Your task to perform on an android device: change the upload size in google photos Image 0: 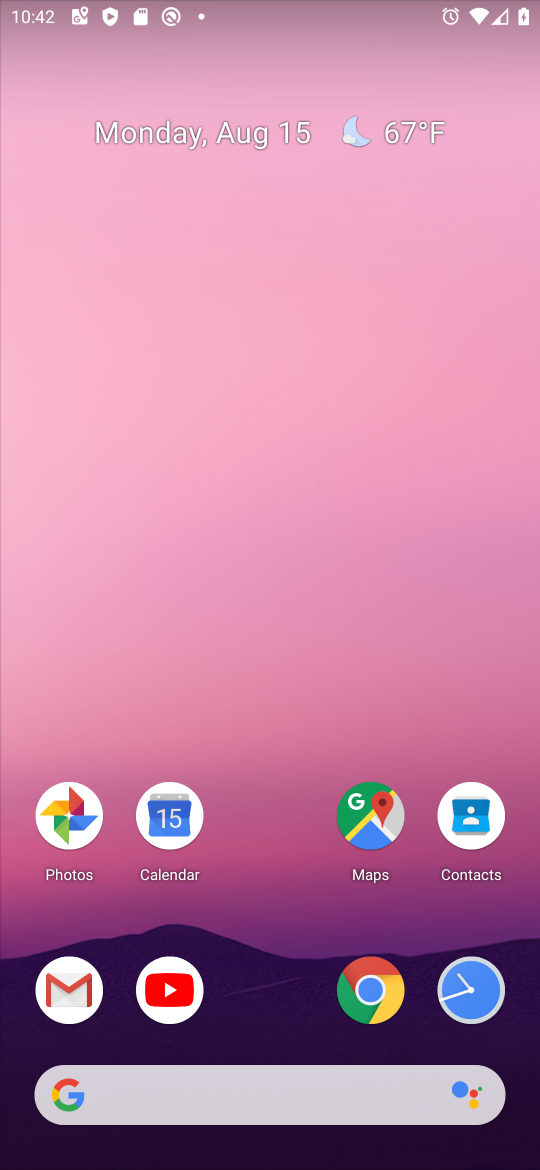
Step 0: click (71, 816)
Your task to perform on an android device: change the upload size in google photos Image 1: 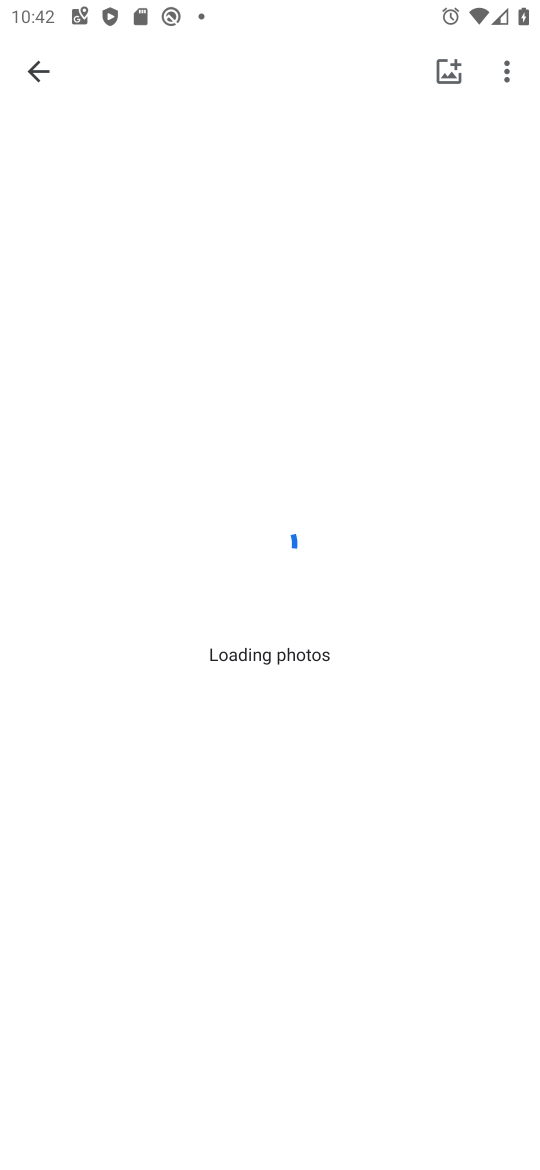
Step 1: click (36, 65)
Your task to perform on an android device: change the upload size in google photos Image 2: 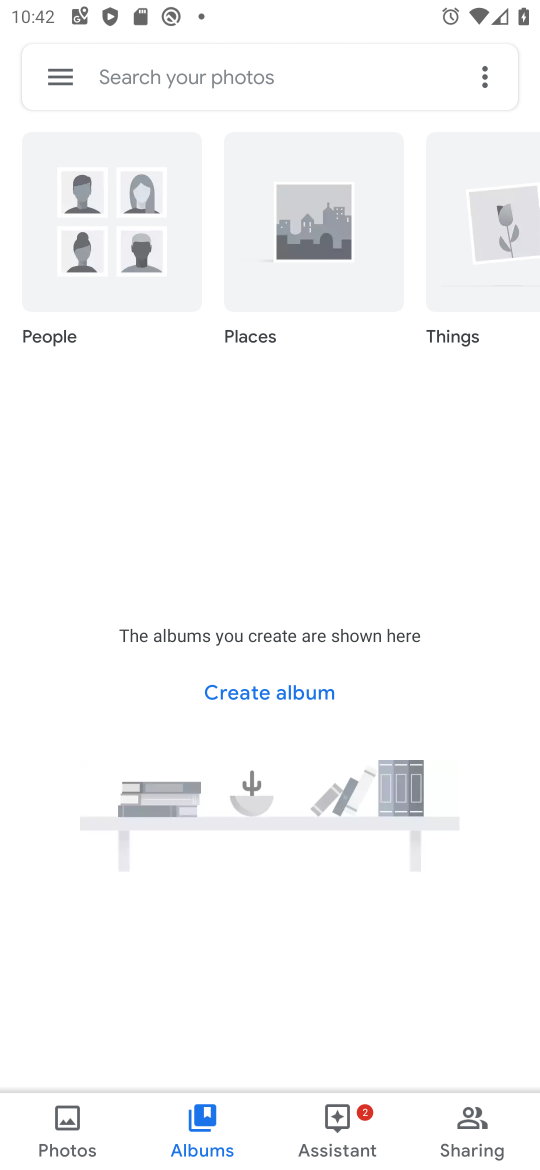
Step 2: click (62, 64)
Your task to perform on an android device: change the upload size in google photos Image 3: 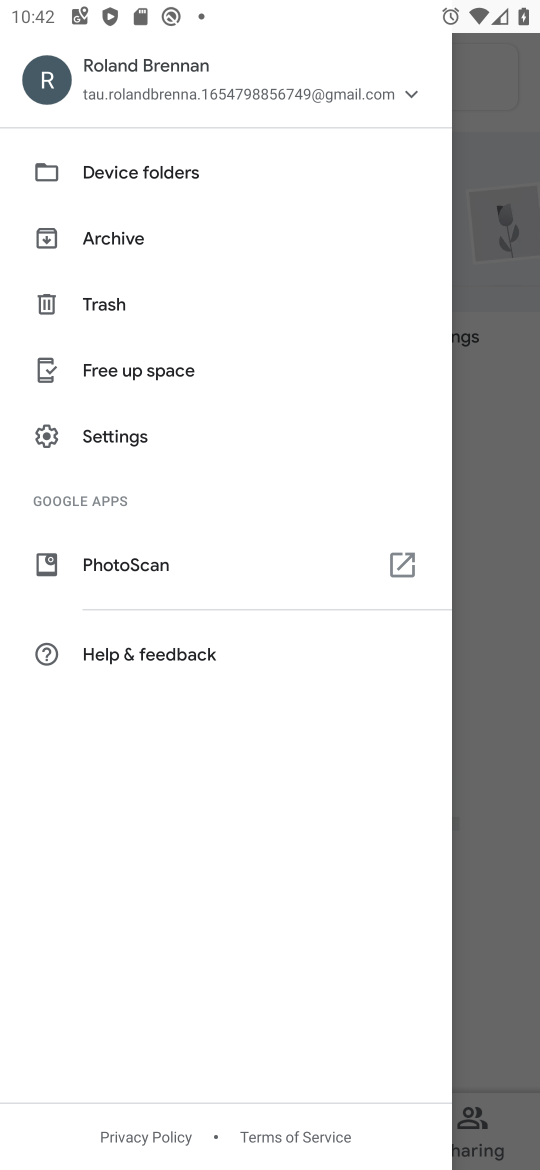
Step 3: click (110, 429)
Your task to perform on an android device: change the upload size in google photos Image 4: 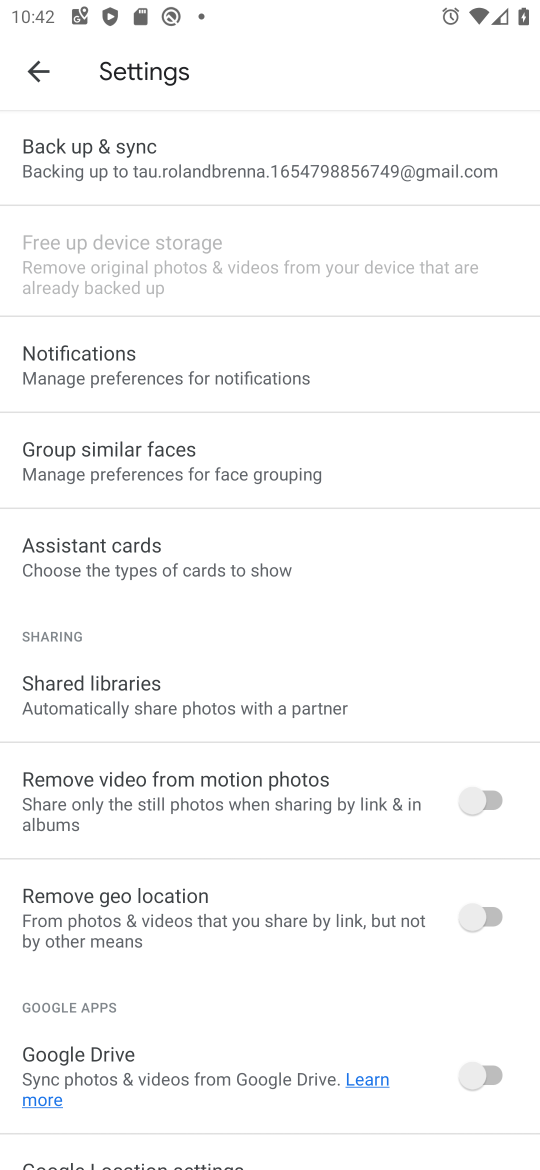
Step 4: click (98, 146)
Your task to perform on an android device: change the upload size in google photos Image 5: 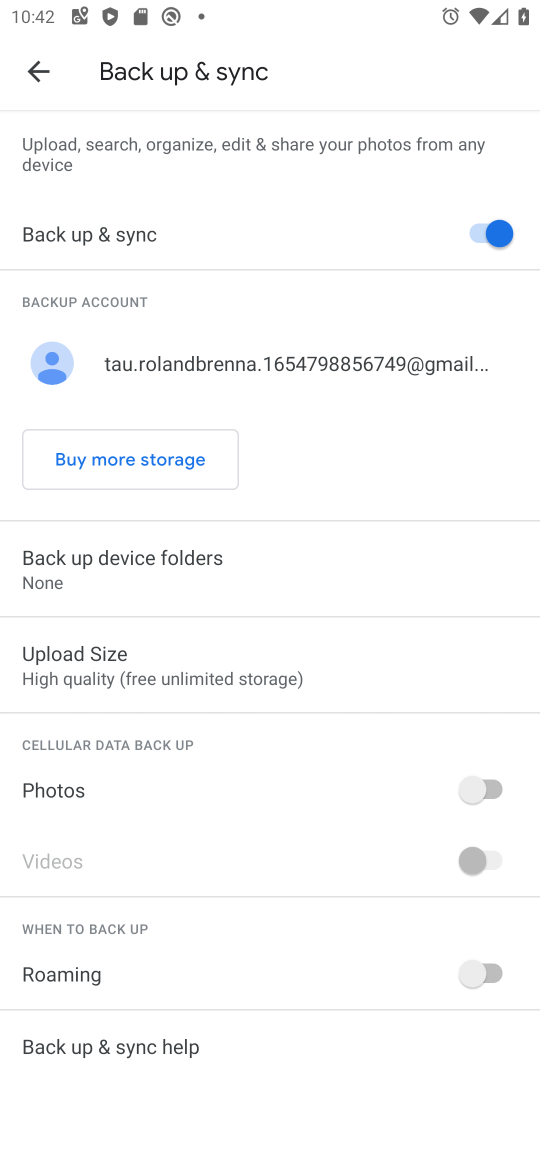
Step 5: click (84, 648)
Your task to perform on an android device: change the upload size in google photos Image 6: 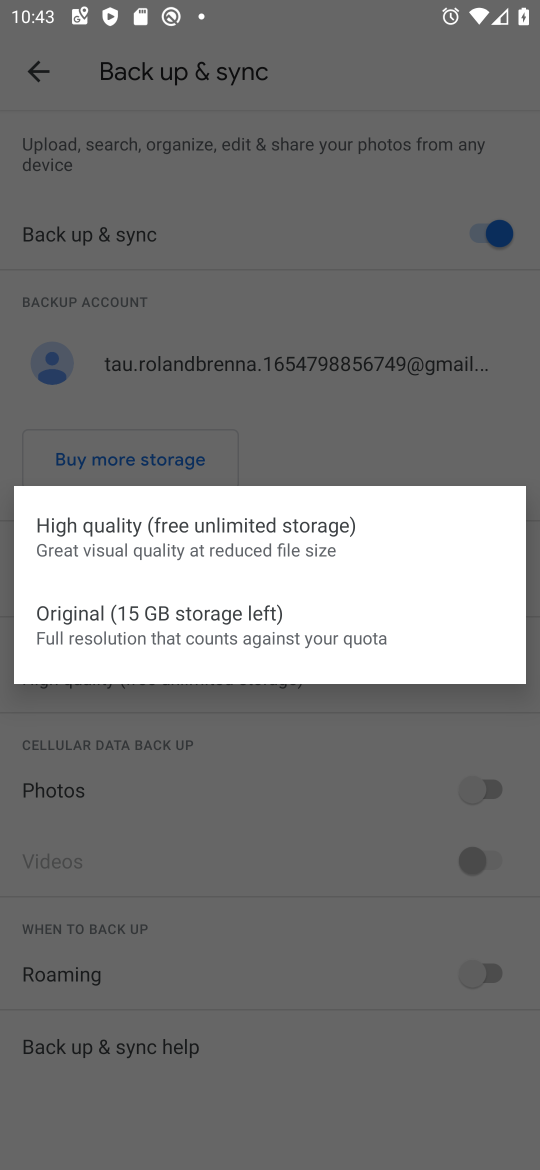
Step 6: click (198, 543)
Your task to perform on an android device: change the upload size in google photos Image 7: 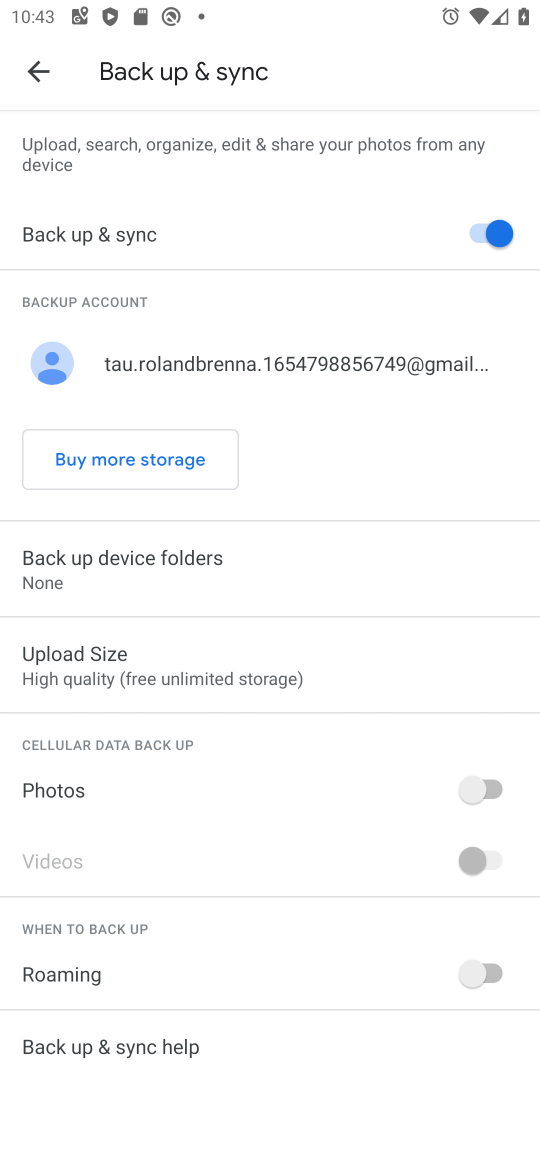
Step 7: click (112, 649)
Your task to perform on an android device: change the upload size in google photos Image 8: 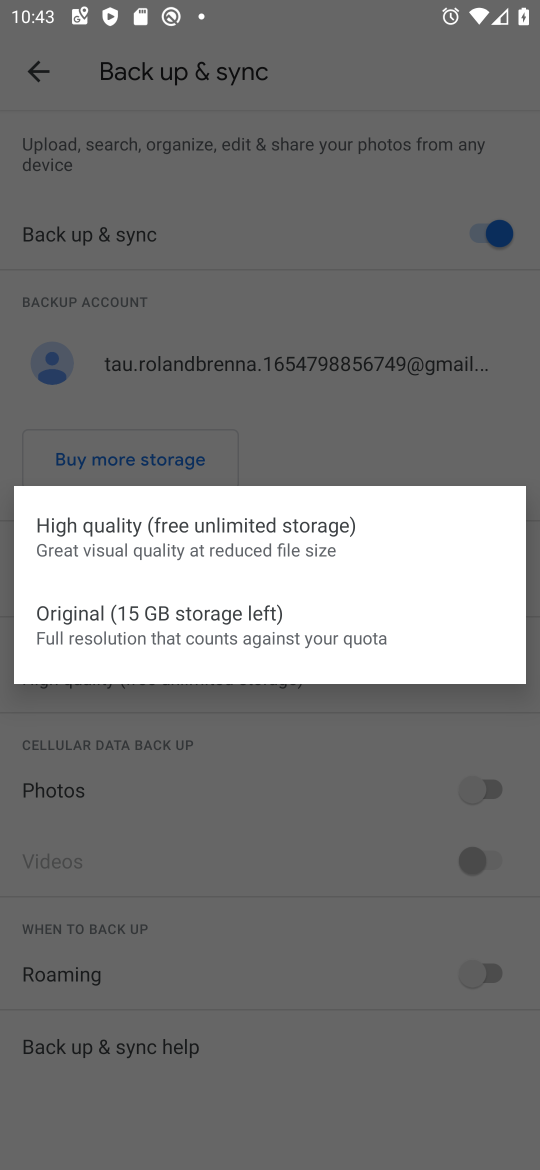
Step 8: click (130, 521)
Your task to perform on an android device: change the upload size in google photos Image 9: 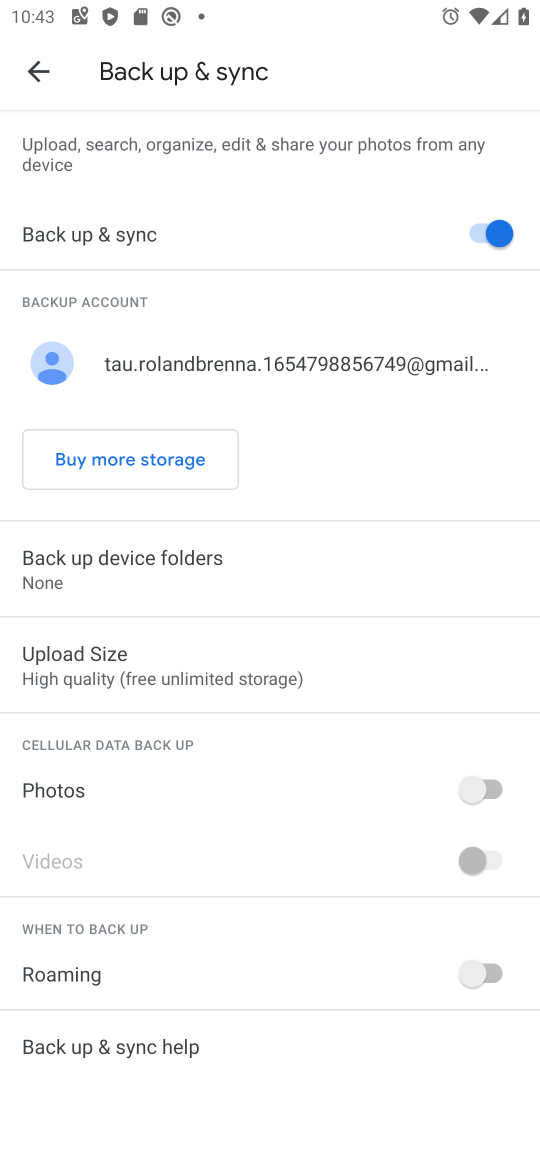
Step 9: task complete